Your task to perform on an android device: Add alienware aurora to the cart on bestbuy.com Image 0: 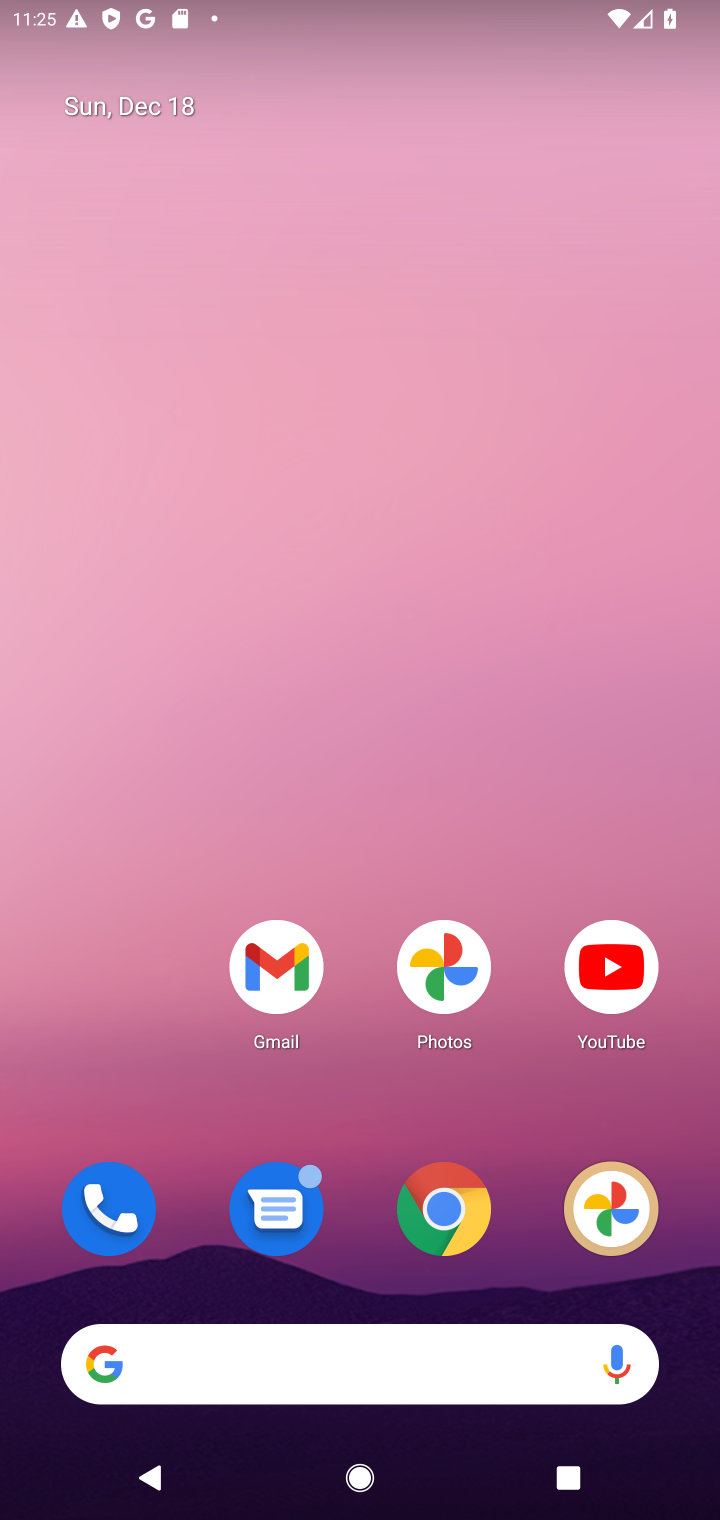
Step 0: click (443, 1198)
Your task to perform on an android device: Add alienware aurora to the cart on bestbuy.com Image 1: 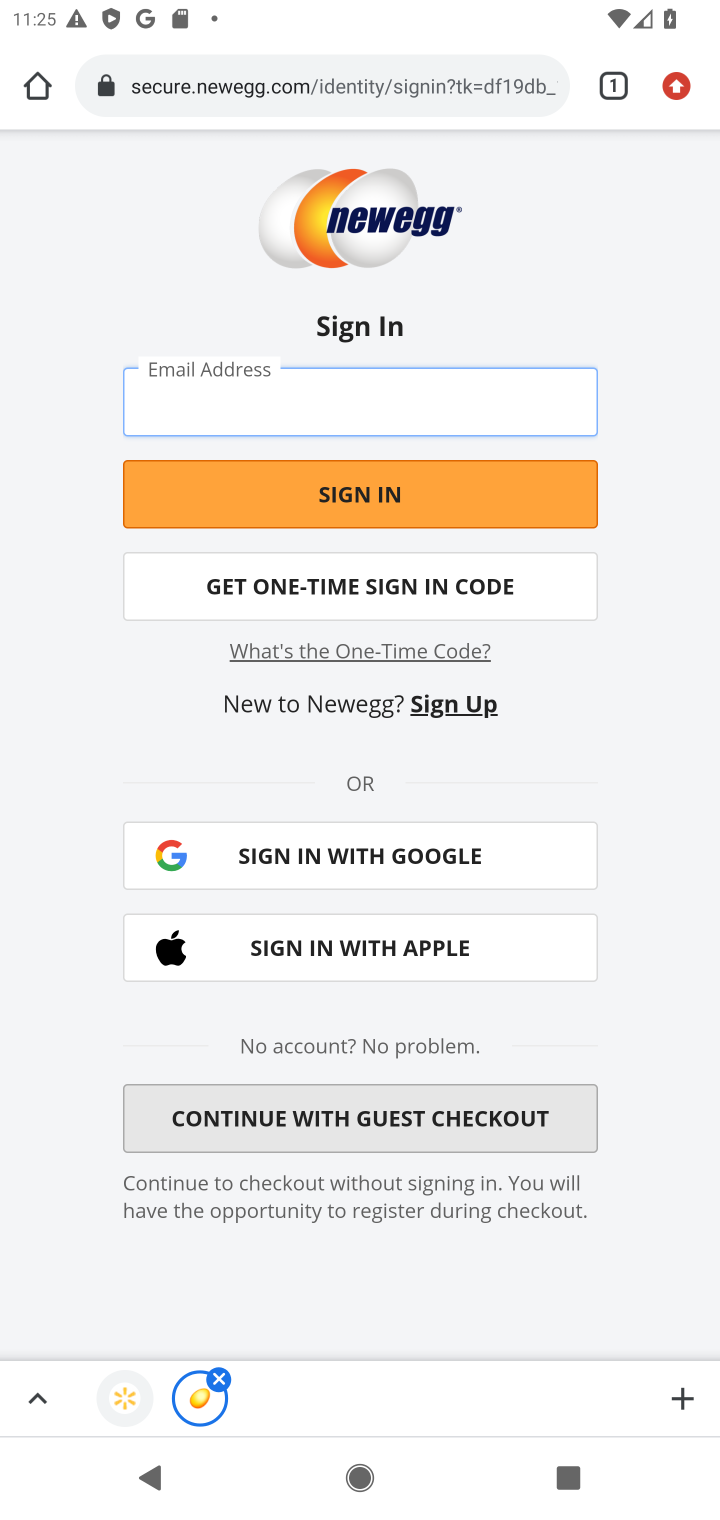
Step 1: click (413, 83)
Your task to perform on an android device: Add alienware aurora to the cart on bestbuy.com Image 2: 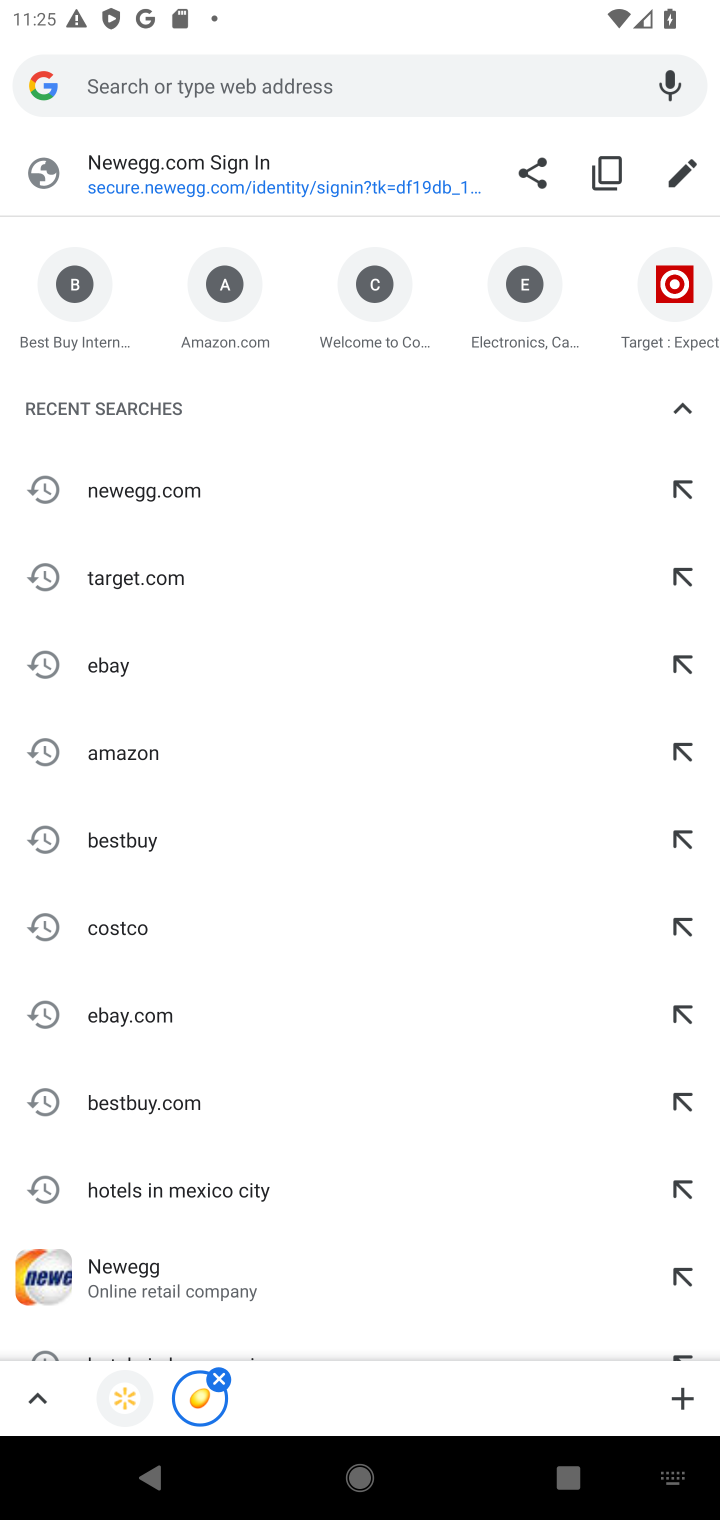
Step 2: click (158, 1106)
Your task to perform on an android device: Add alienware aurora to the cart on bestbuy.com Image 3: 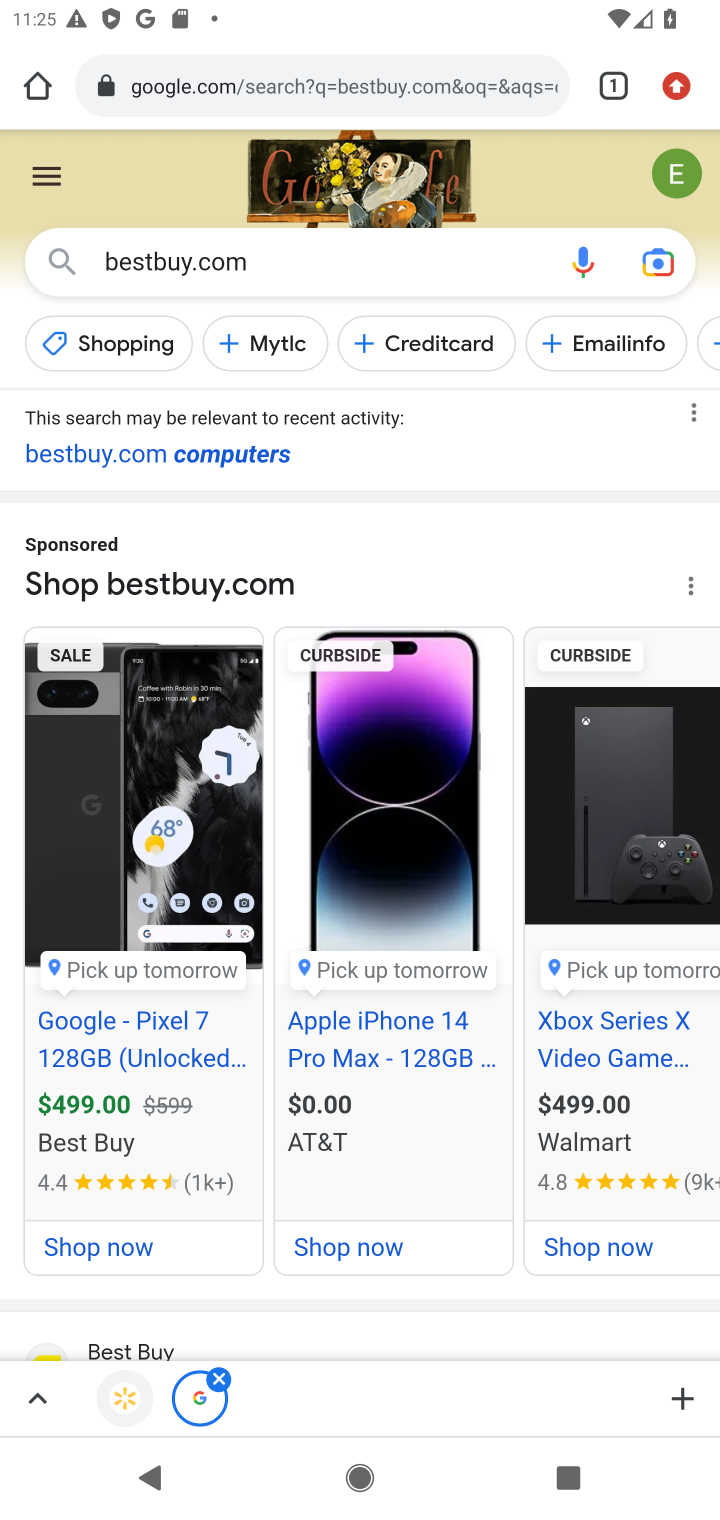
Step 3: click (80, 453)
Your task to perform on an android device: Add alienware aurora to the cart on bestbuy.com Image 4: 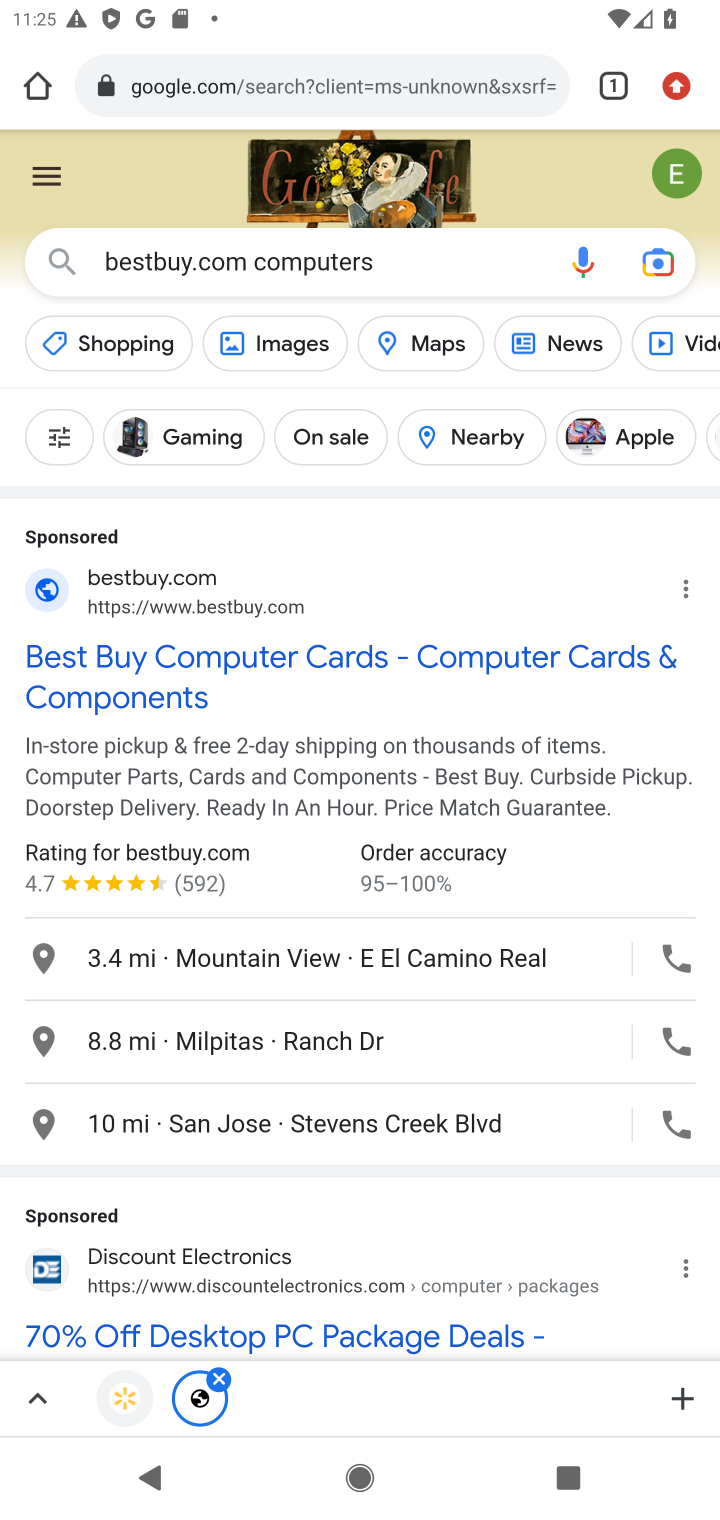
Step 4: click (207, 661)
Your task to perform on an android device: Add alienware aurora to the cart on bestbuy.com Image 5: 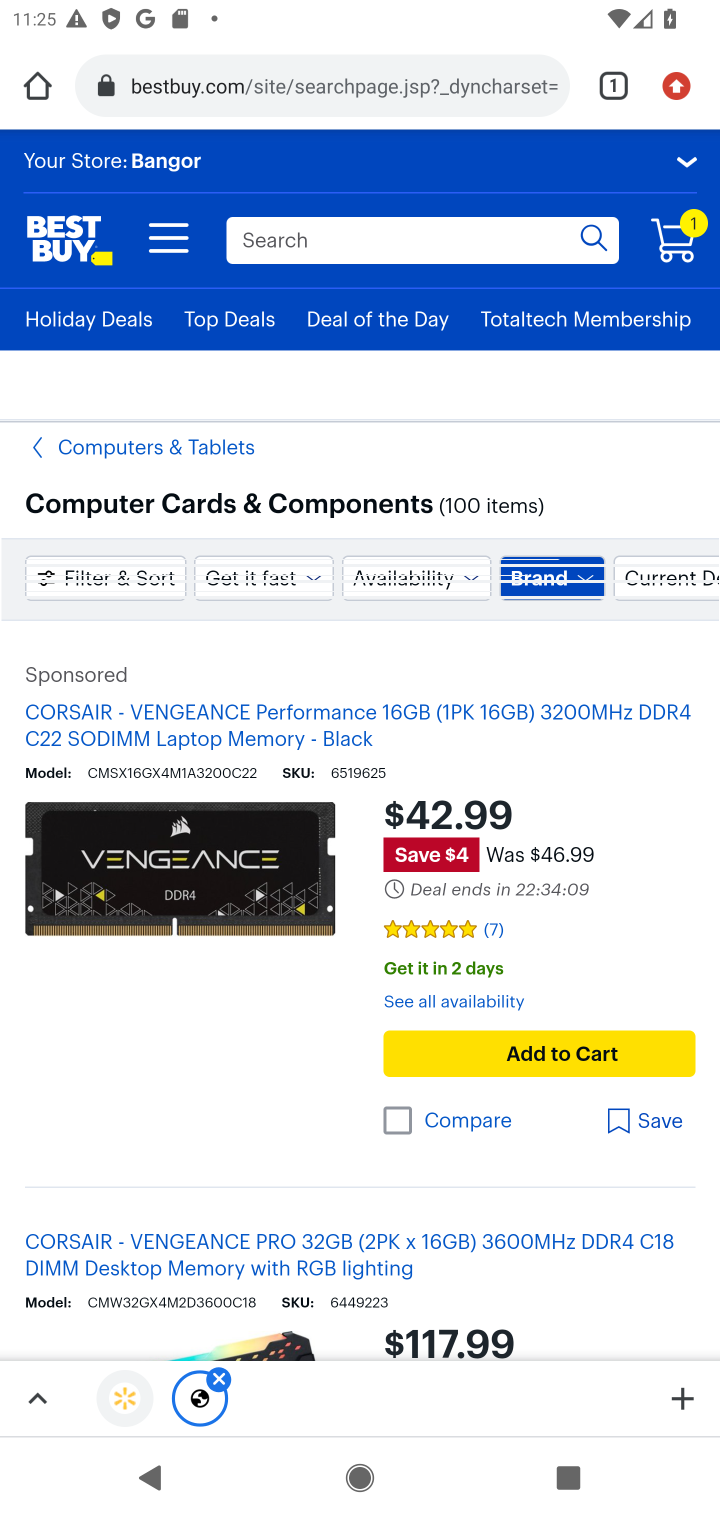
Step 5: click (451, 248)
Your task to perform on an android device: Add alienware aurora to the cart on bestbuy.com Image 6: 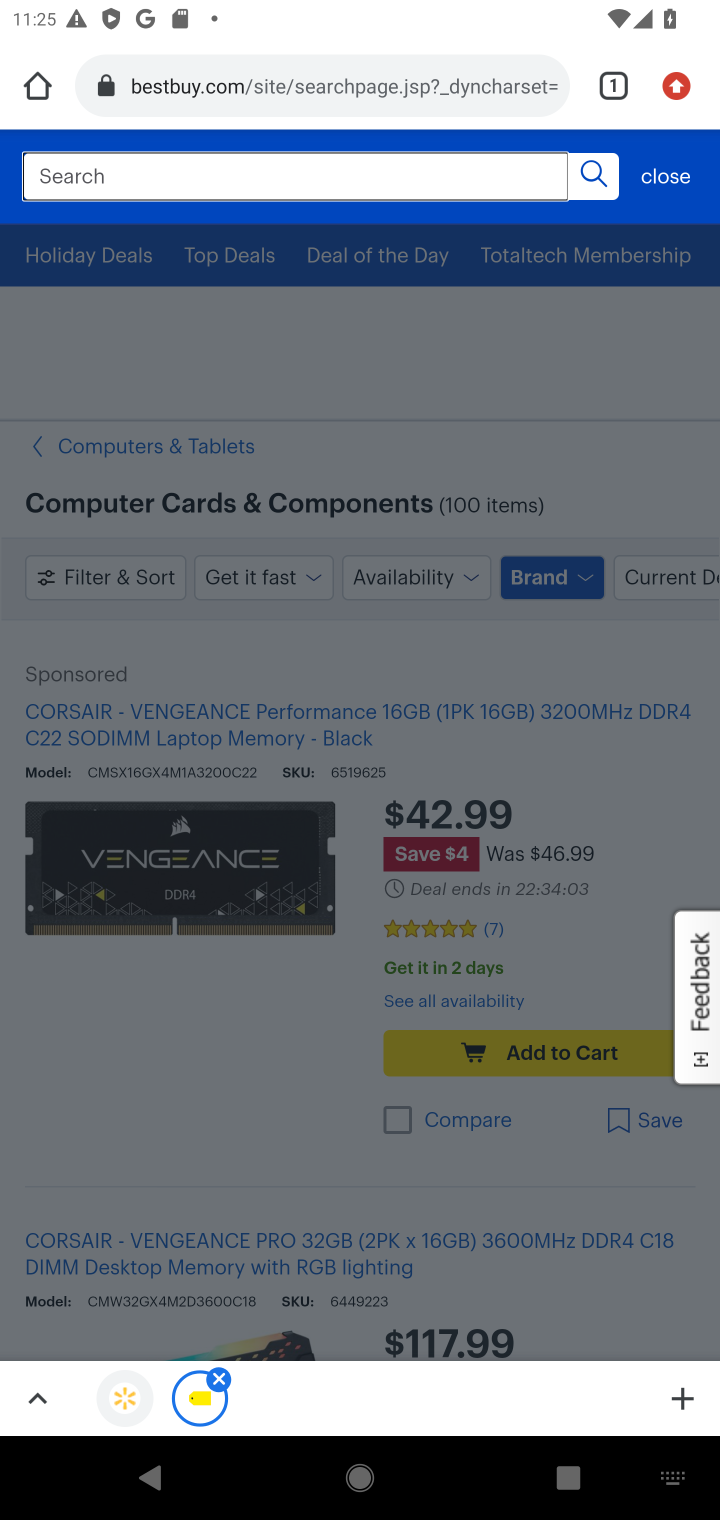
Step 6: type "alienware aurora"
Your task to perform on an android device: Add alienware aurora to the cart on bestbuy.com Image 7: 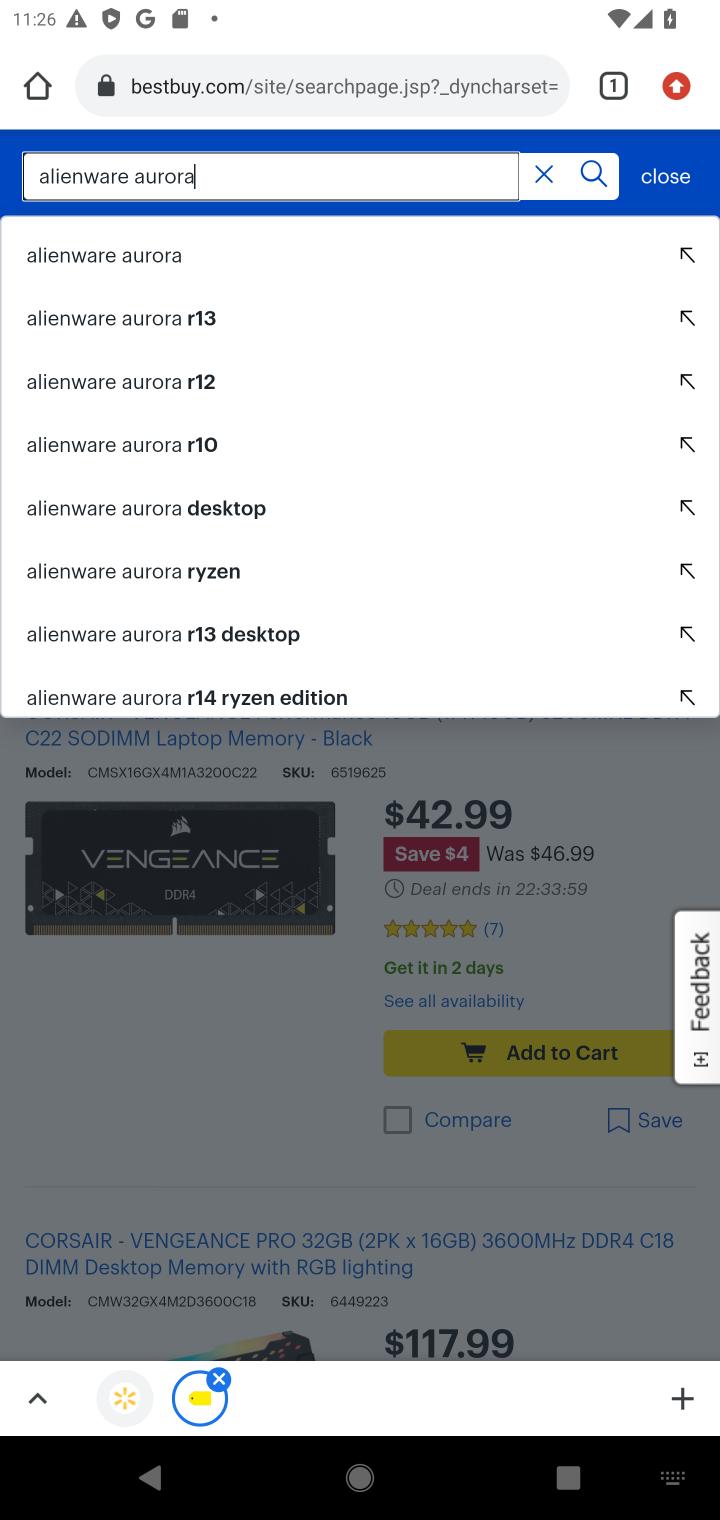
Step 7: click (166, 256)
Your task to perform on an android device: Add alienware aurora to the cart on bestbuy.com Image 8: 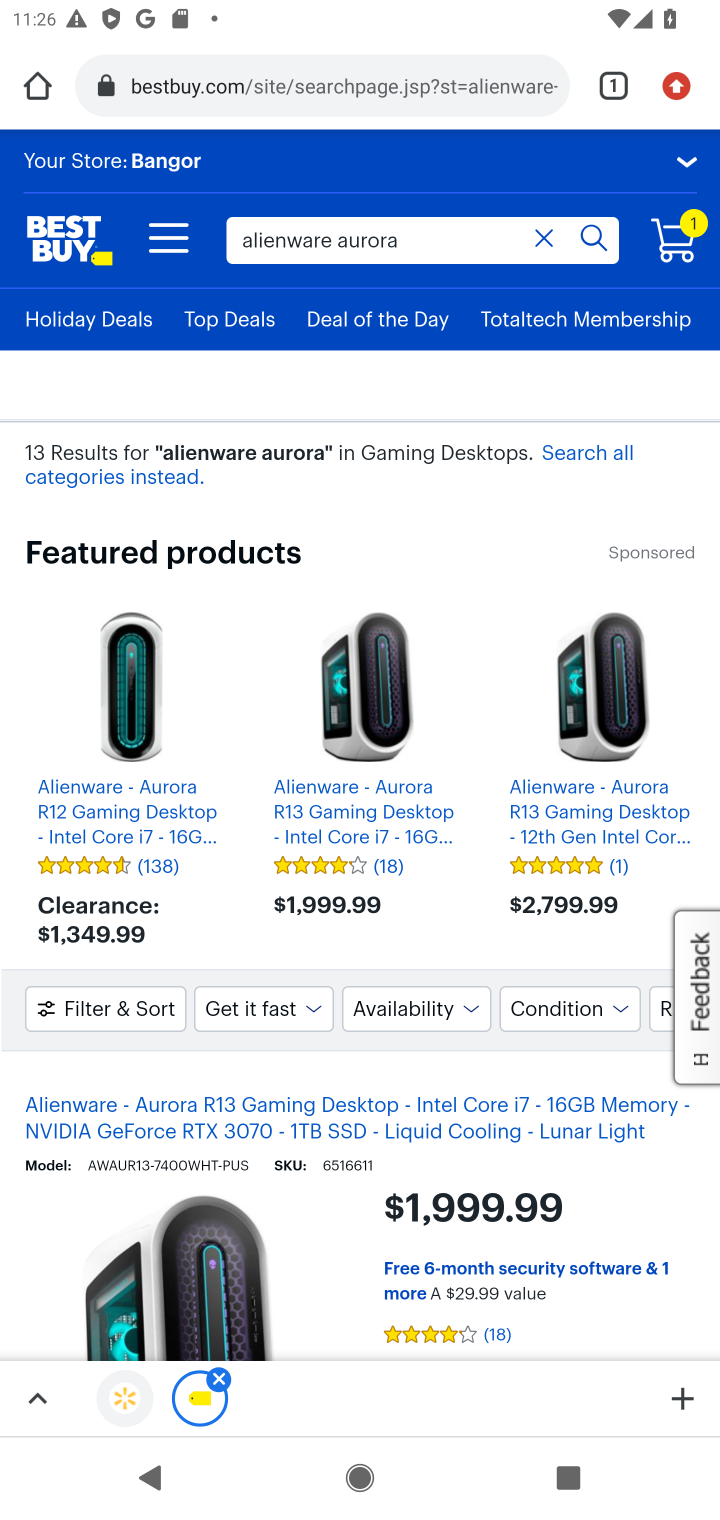
Step 8: click (364, 1142)
Your task to perform on an android device: Add alienware aurora to the cart on bestbuy.com Image 9: 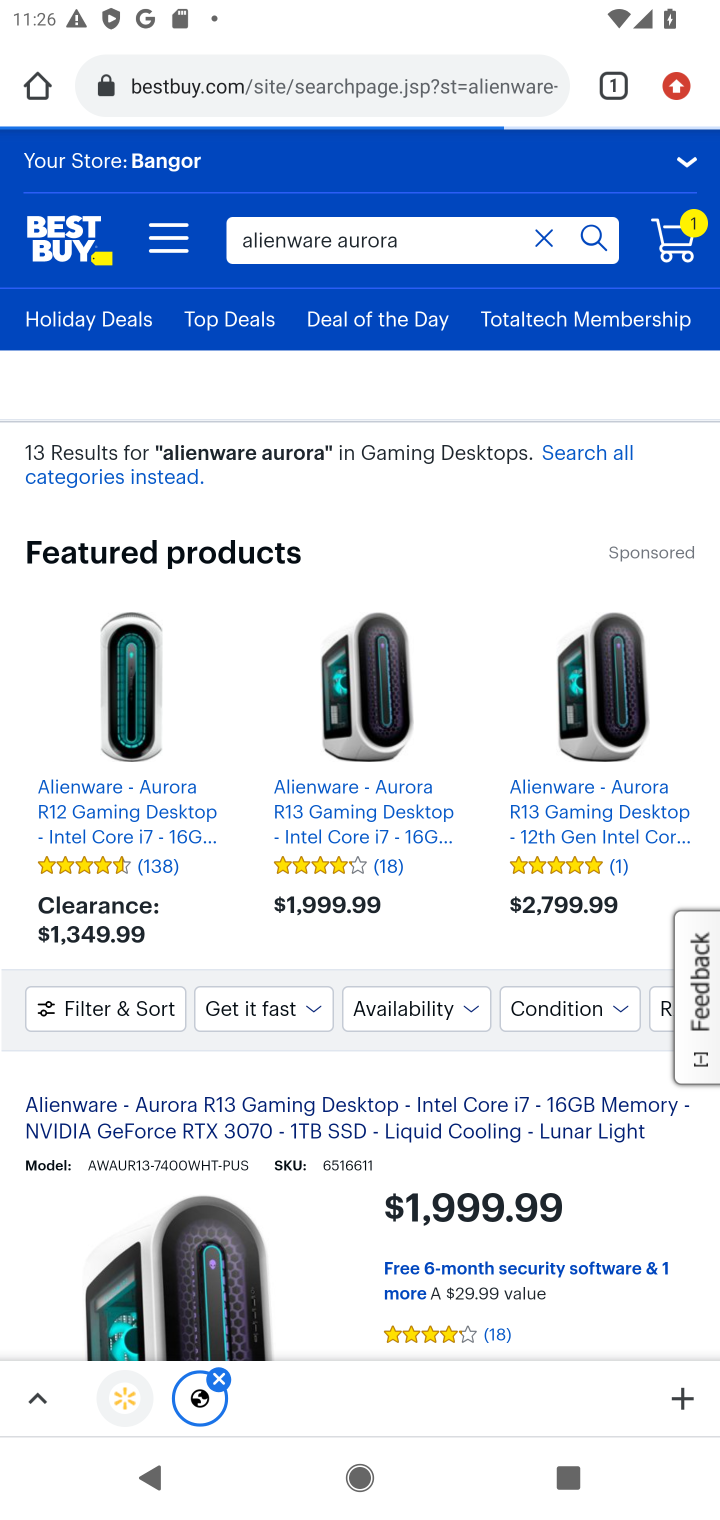
Step 9: click (363, 1194)
Your task to perform on an android device: Add alienware aurora to the cart on bestbuy.com Image 10: 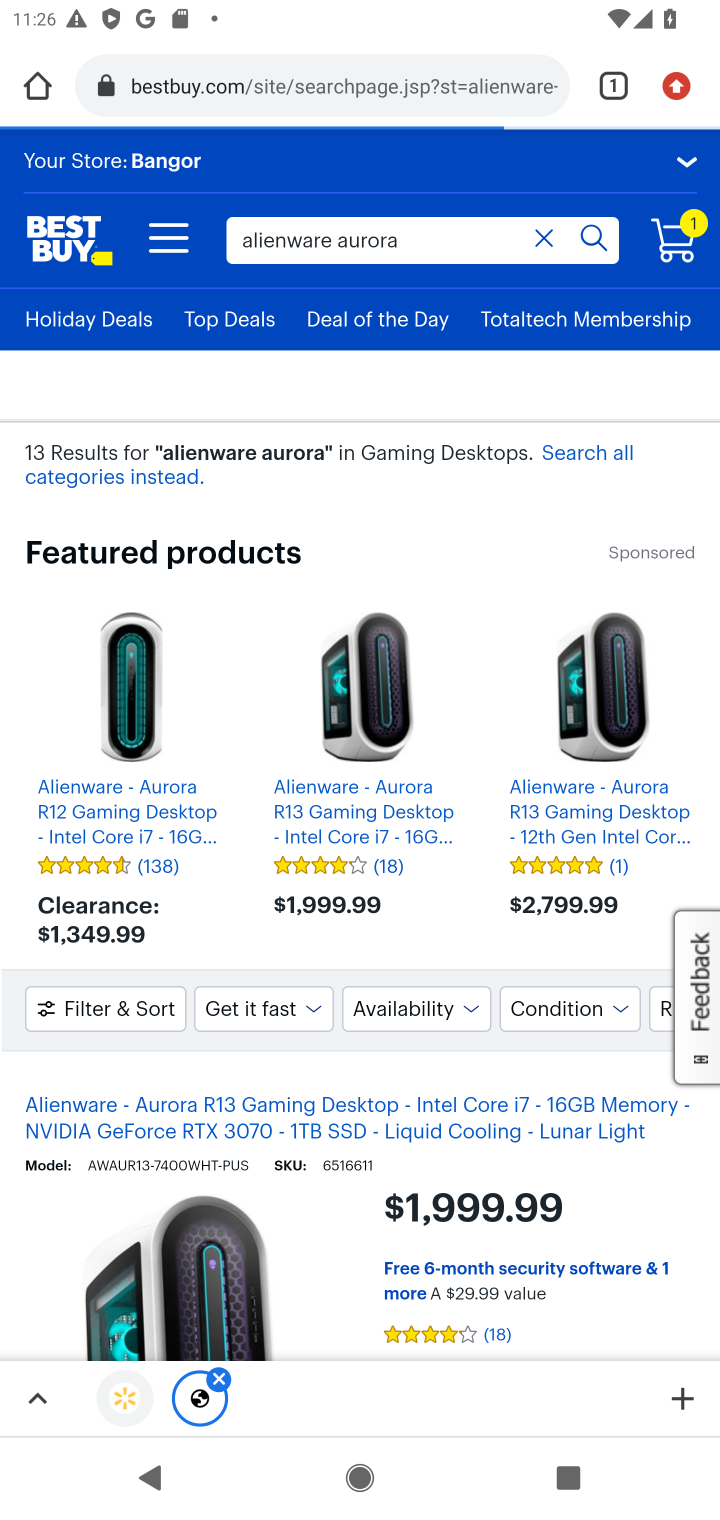
Step 10: click (288, 1228)
Your task to perform on an android device: Add alienware aurora to the cart on bestbuy.com Image 11: 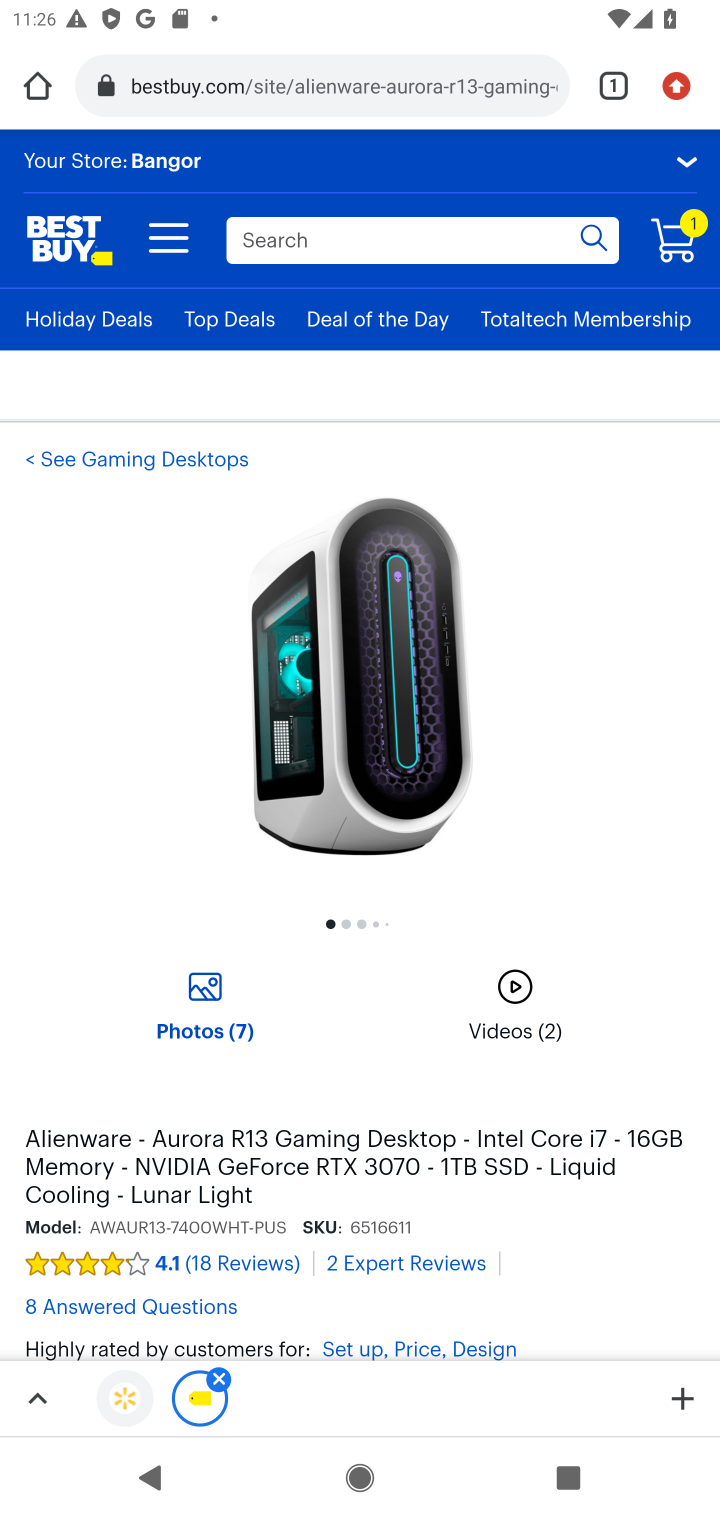
Step 11: drag from (554, 1256) to (503, 533)
Your task to perform on an android device: Add alienware aurora to the cart on bestbuy.com Image 12: 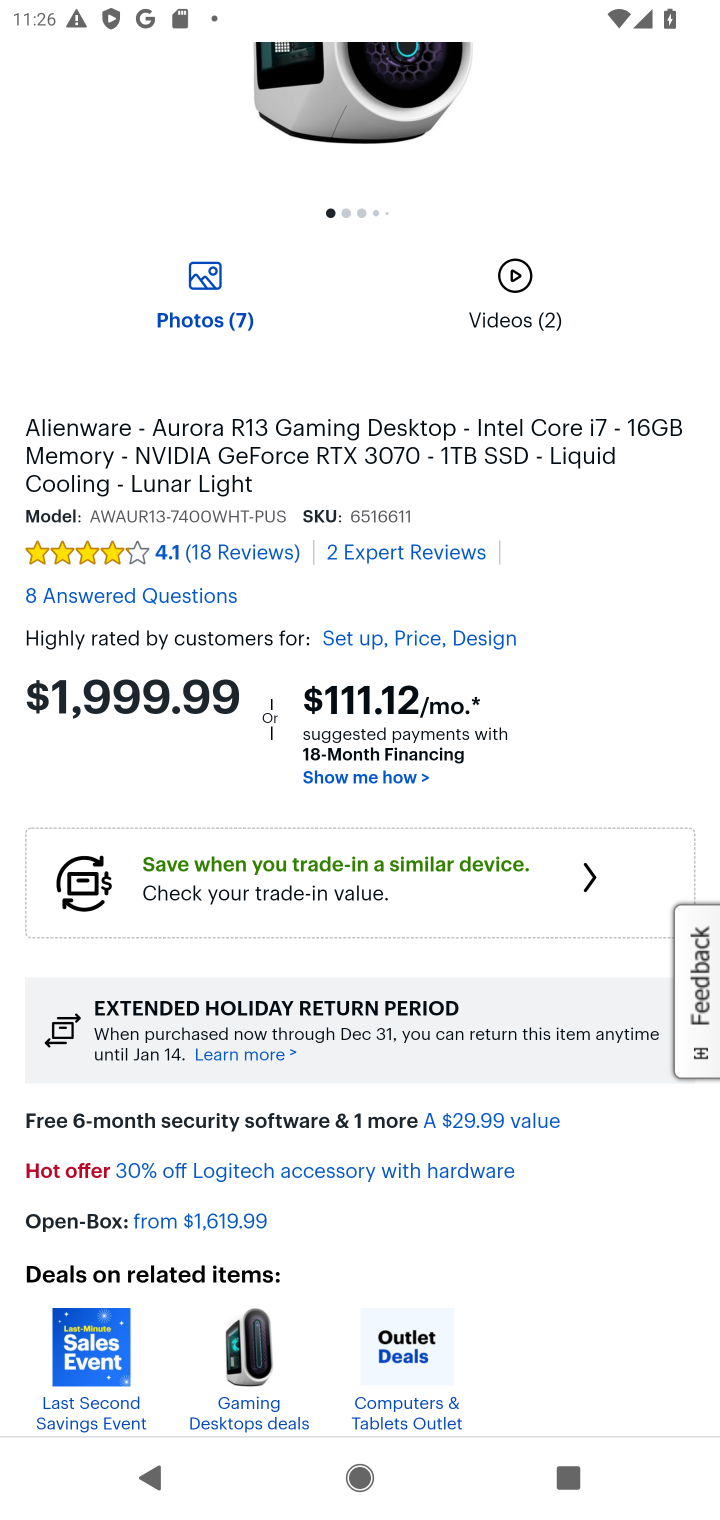
Step 12: drag from (530, 1231) to (564, 211)
Your task to perform on an android device: Add alienware aurora to the cart on bestbuy.com Image 13: 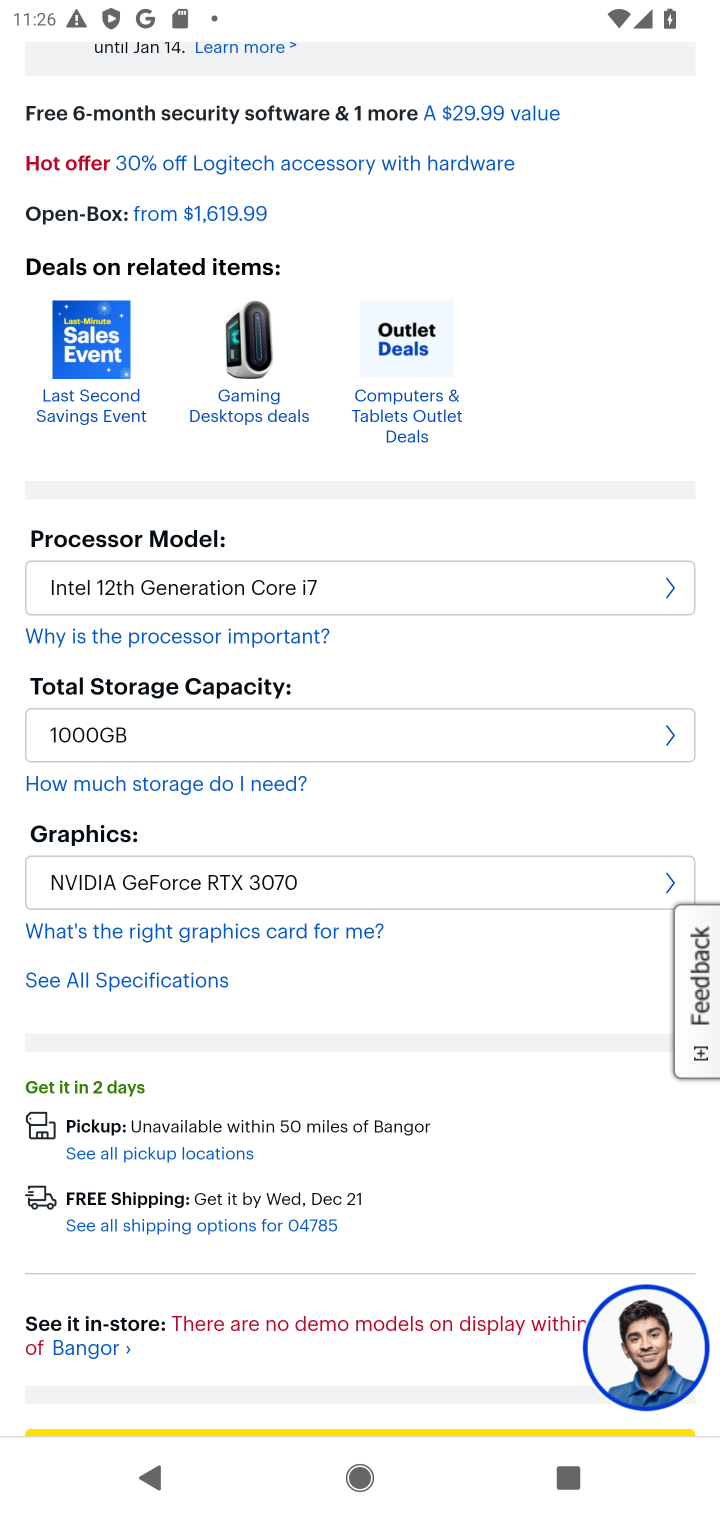
Step 13: drag from (509, 1162) to (449, 460)
Your task to perform on an android device: Add alienware aurora to the cart on bestbuy.com Image 14: 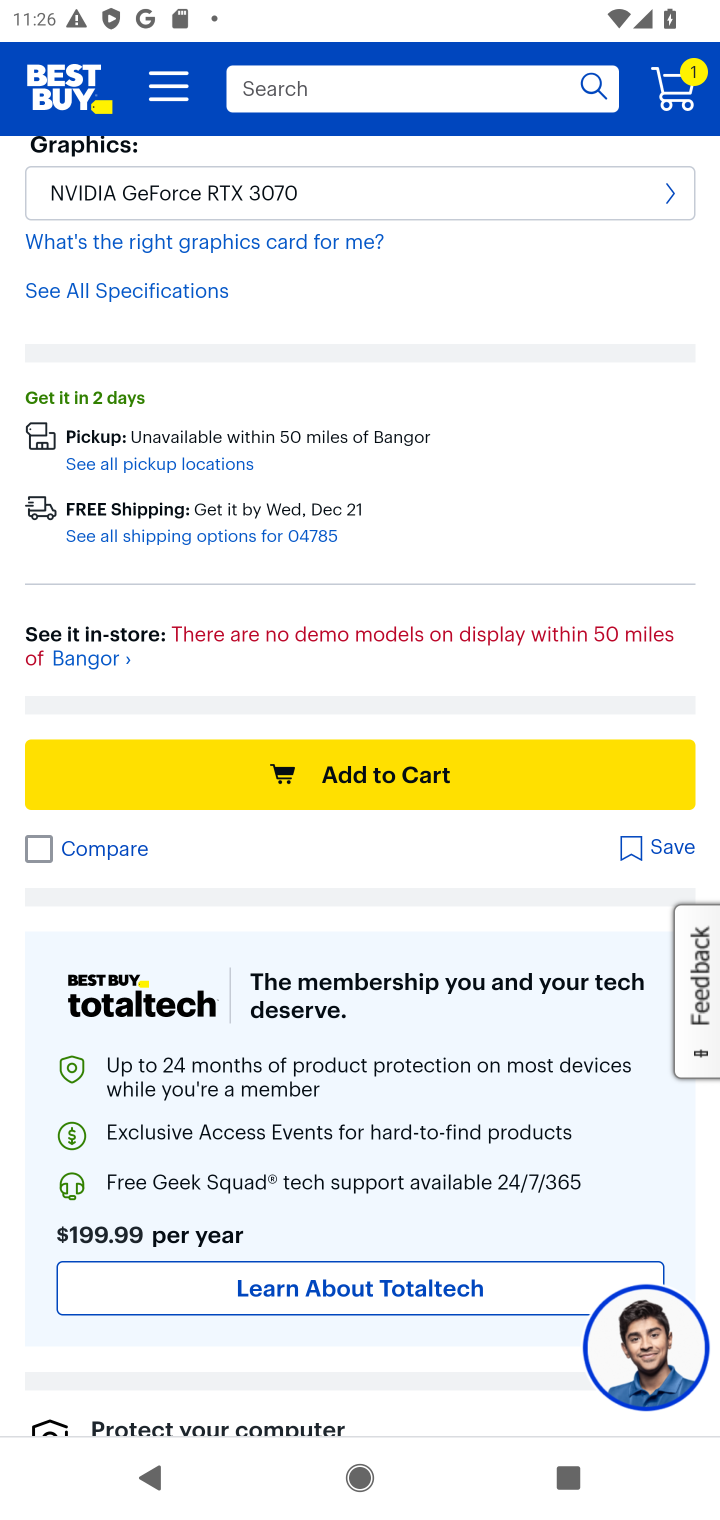
Step 14: click (398, 768)
Your task to perform on an android device: Add alienware aurora to the cart on bestbuy.com Image 15: 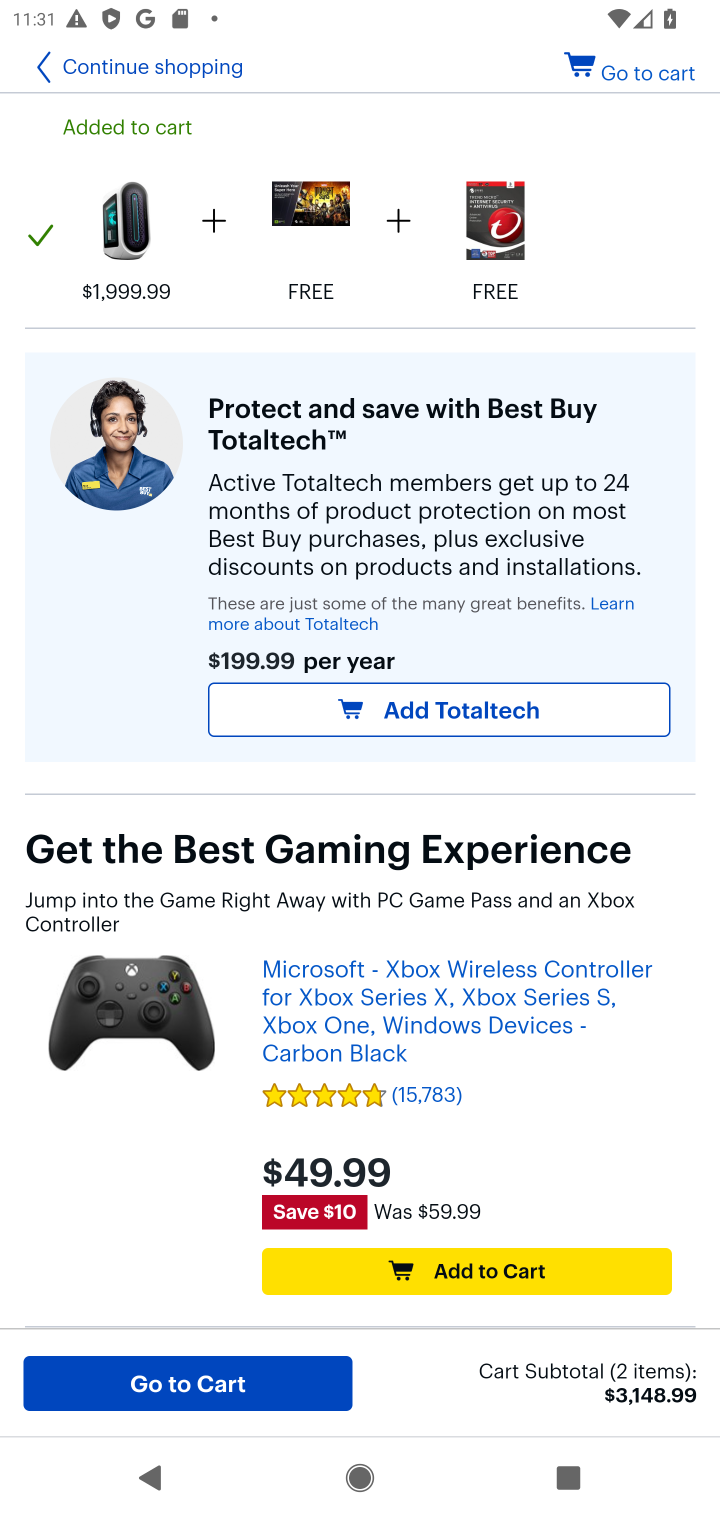
Step 15: task complete